Your task to perform on an android device: remove spam from my inbox in the gmail app Image 0: 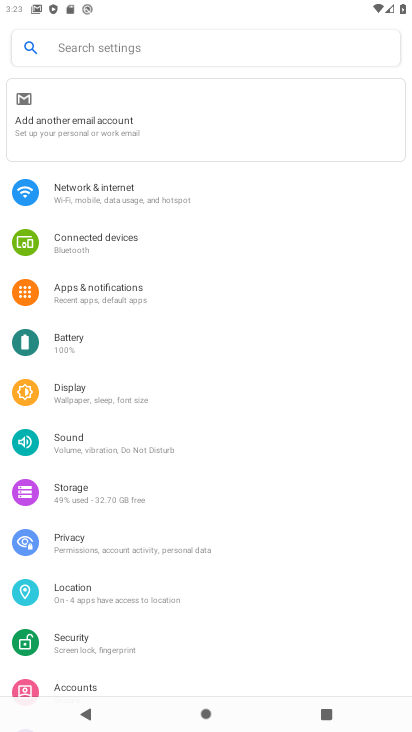
Step 0: press home button
Your task to perform on an android device: remove spam from my inbox in the gmail app Image 1: 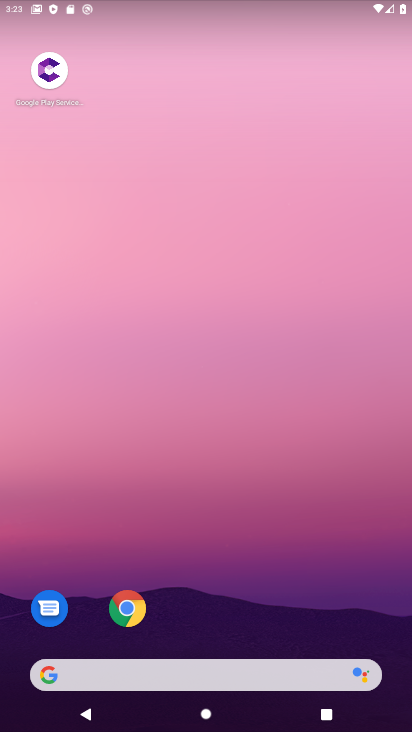
Step 1: drag from (223, 605) to (231, 2)
Your task to perform on an android device: remove spam from my inbox in the gmail app Image 2: 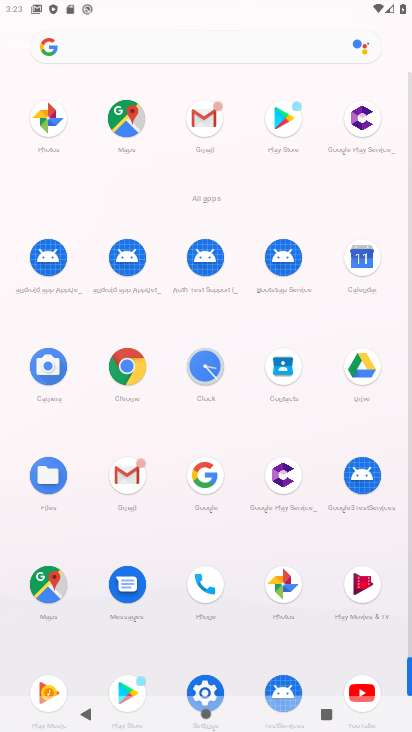
Step 2: click (217, 106)
Your task to perform on an android device: remove spam from my inbox in the gmail app Image 3: 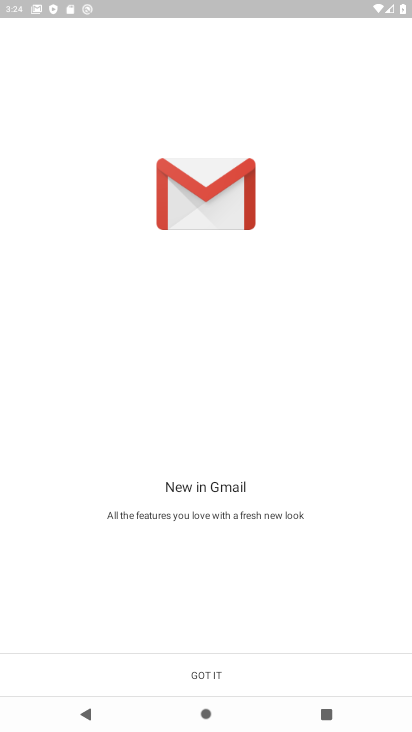
Step 3: click (235, 676)
Your task to perform on an android device: remove spam from my inbox in the gmail app Image 4: 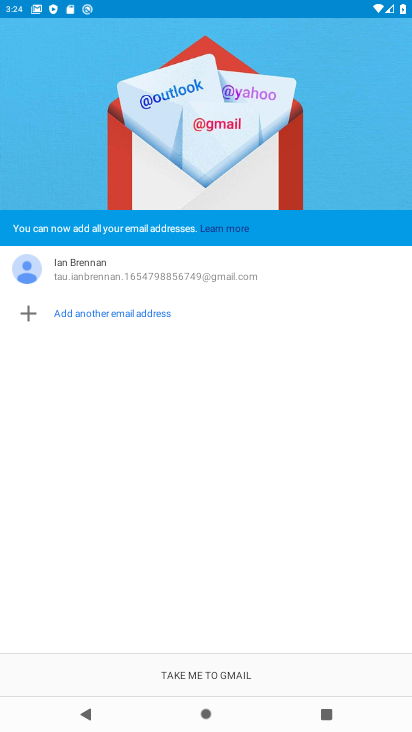
Step 4: click (234, 674)
Your task to perform on an android device: remove spam from my inbox in the gmail app Image 5: 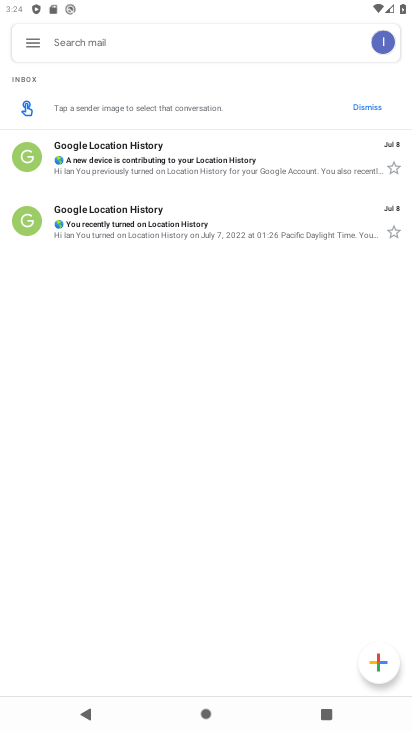
Step 5: click (31, 47)
Your task to perform on an android device: remove spam from my inbox in the gmail app Image 6: 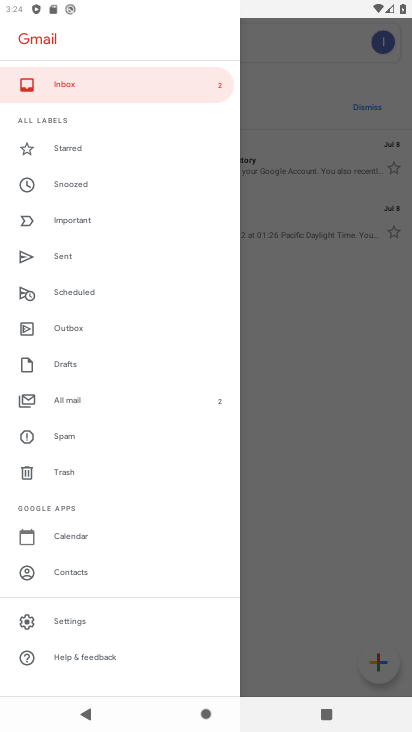
Step 6: click (55, 425)
Your task to perform on an android device: remove spam from my inbox in the gmail app Image 7: 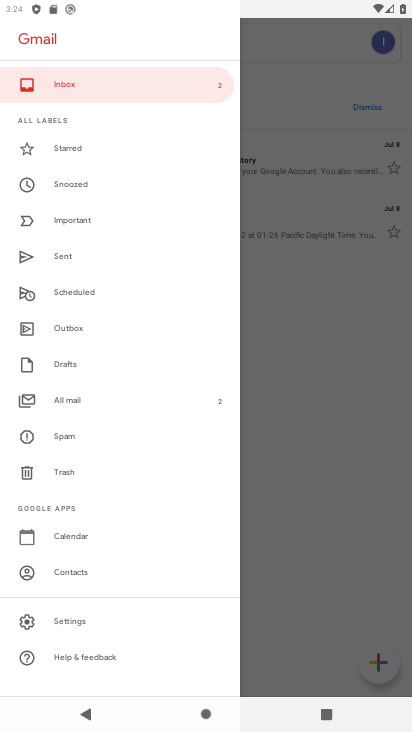
Step 7: click (72, 432)
Your task to perform on an android device: remove spam from my inbox in the gmail app Image 8: 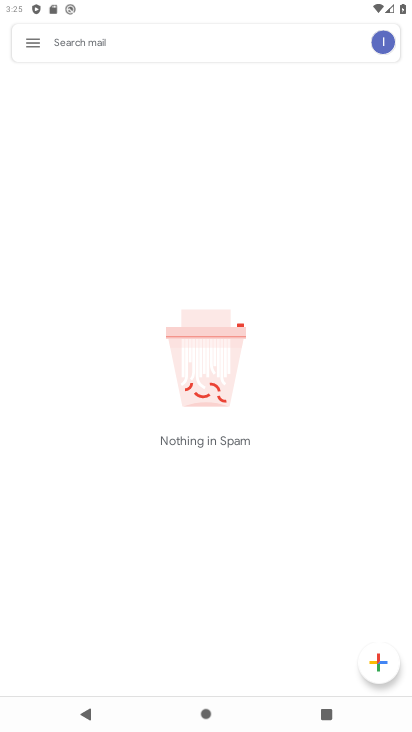
Step 8: task complete